Your task to perform on an android device: Go to CNN.com Image 0: 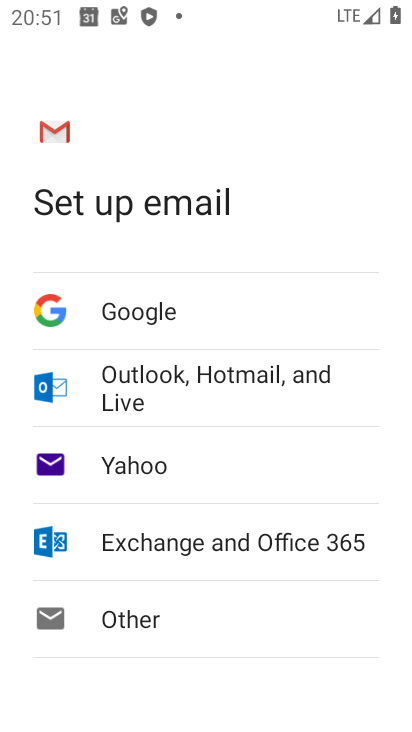
Step 0: press home button
Your task to perform on an android device: Go to CNN.com Image 1: 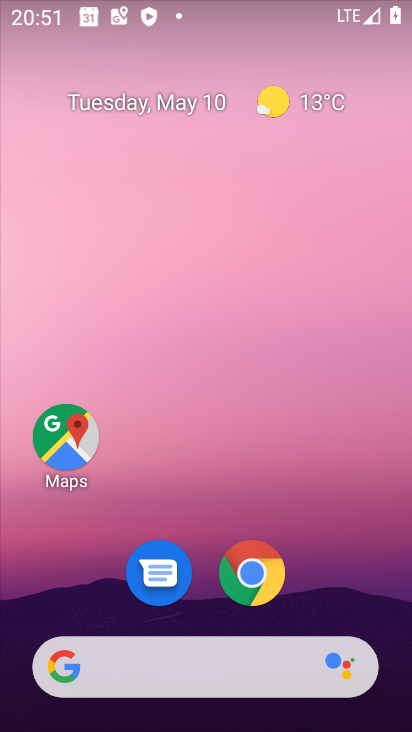
Step 1: click (264, 582)
Your task to perform on an android device: Go to CNN.com Image 2: 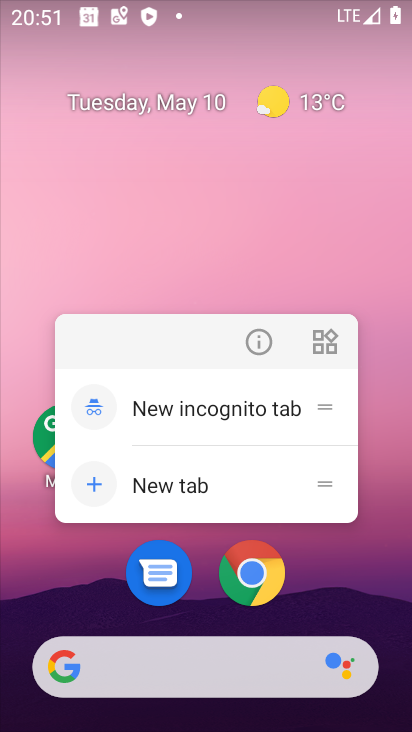
Step 2: click (259, 577)
Your task to perform on an android device: Go to CNN.com Image 3: 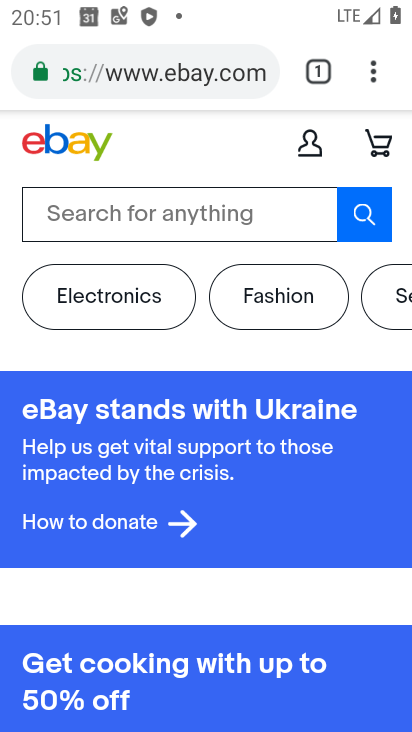
Step 3: click (126, 73)
Your task to perform on an android device: Go to CNN.com Image 4: 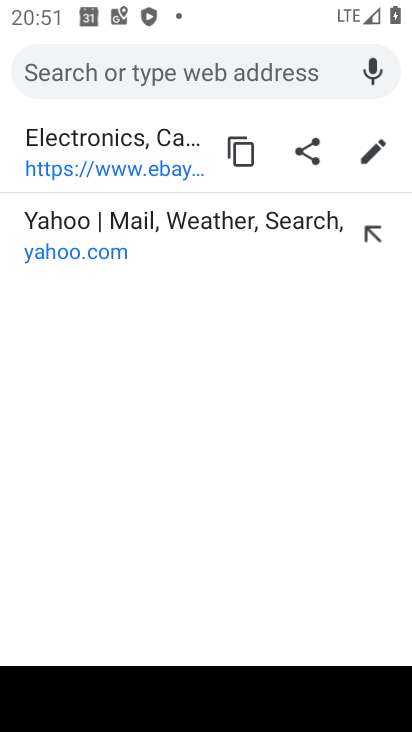
Step 4: type "cnn.com"
Your task to perform on an android device: Go to CNN.com Image 5: 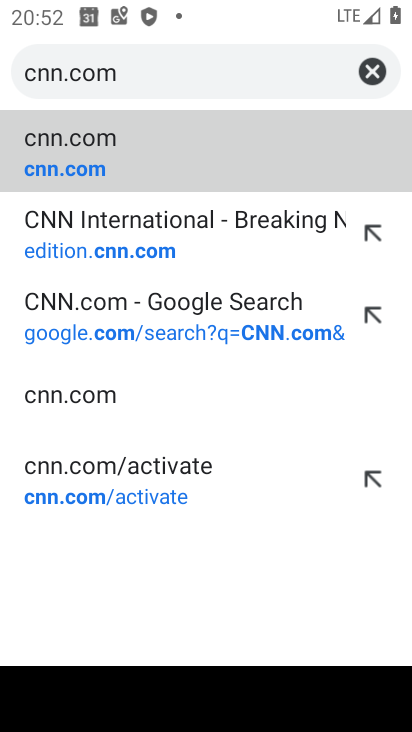
Step 5: click (100, 148)
Your task to perform on an android device: Go to CNN.com Image 6: 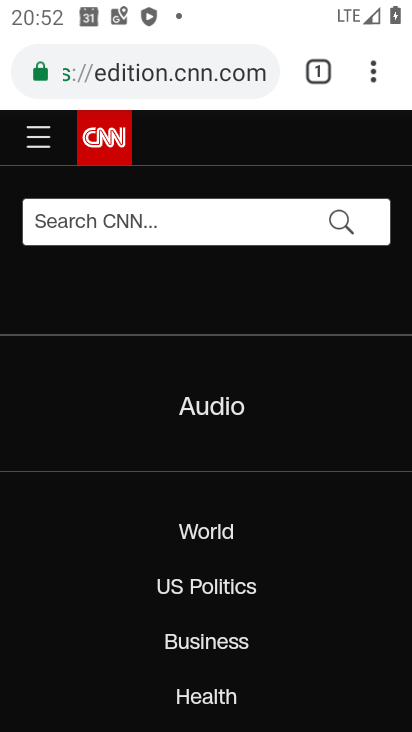
Step 6: task complete